Your task to perform on an android device: When is my next meeting? Image 0: 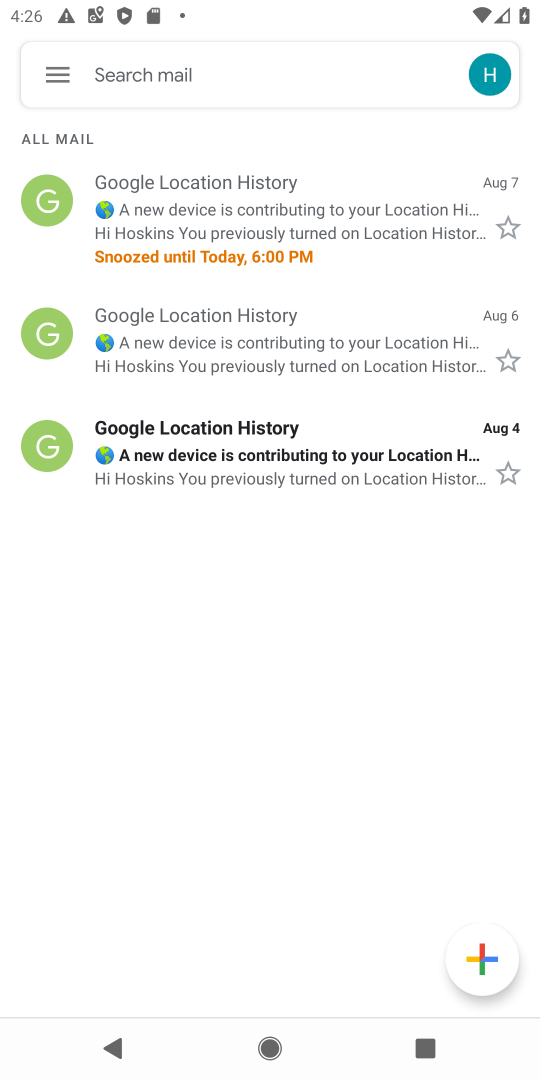
Step 0: press home button
Your task to perform on an android device: When is my next meeting? Image 1: 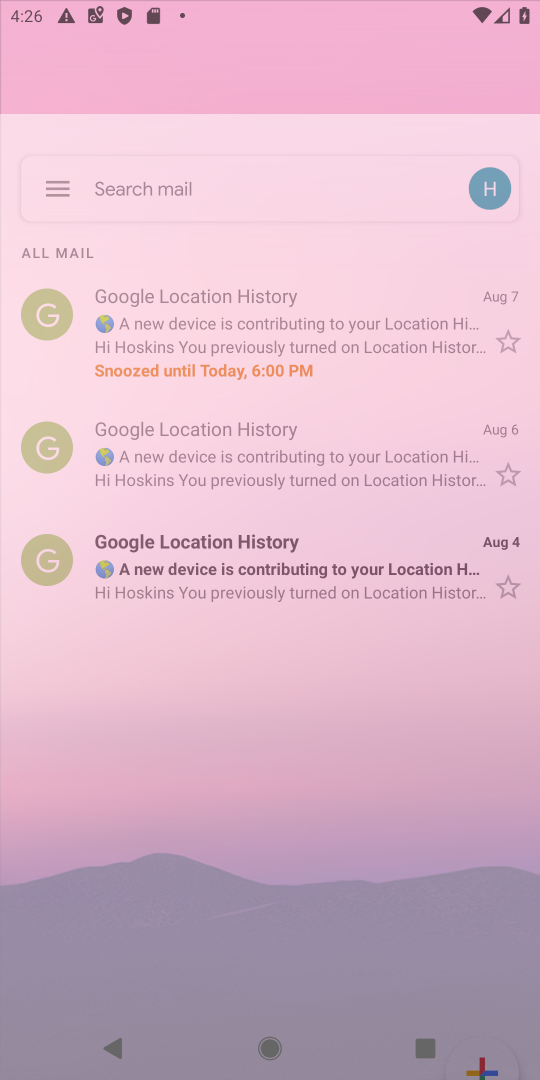
Step 1: press home button
Your task to perform on an android device: When is my next meeting? Image 2: 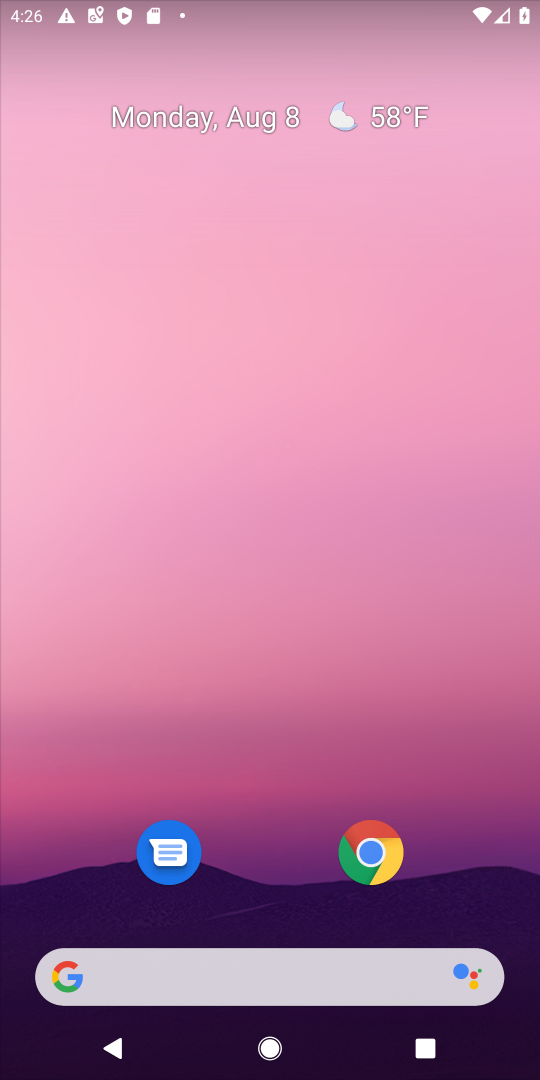
Step 2: drag from (310, 736) to (356, 16)
Your task to perform on an android device: When is my next meeting? Image 3: 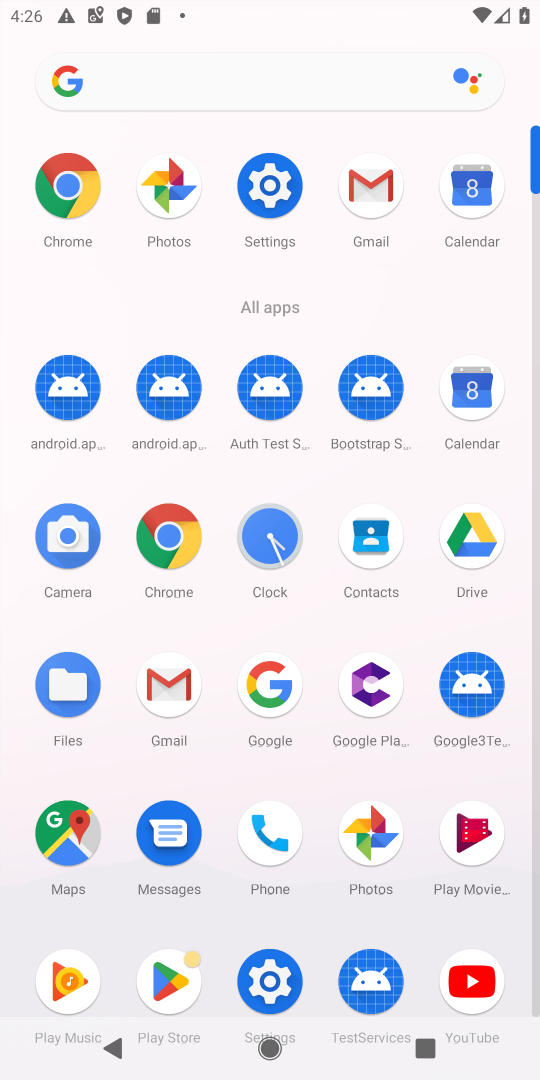
Step 3: click (467, 390)
Your task to perform on an android device: When is my next meeting? Image 4: 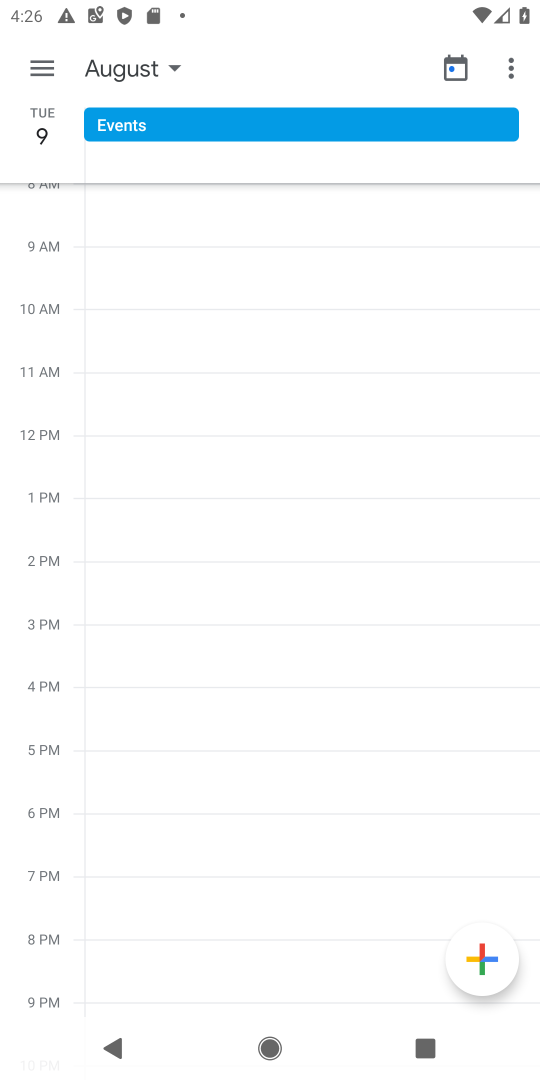
Step 4: click (47, 62)
Your task to perform on an android device: When is my next meeting? Image 5: 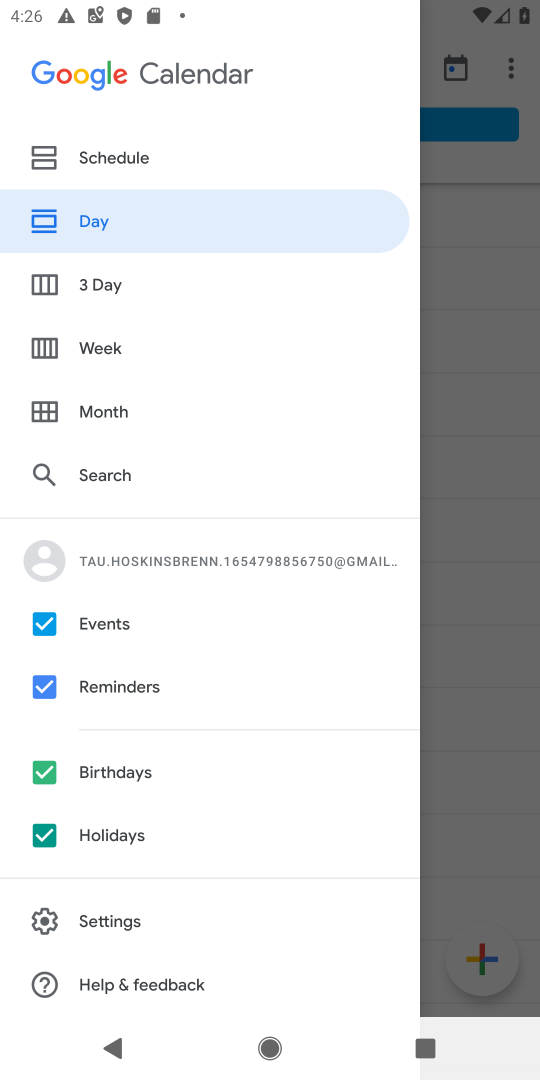
Step 5: click (103, 289)
Your task to perform on an android device: When is my next meeting? Image 6: 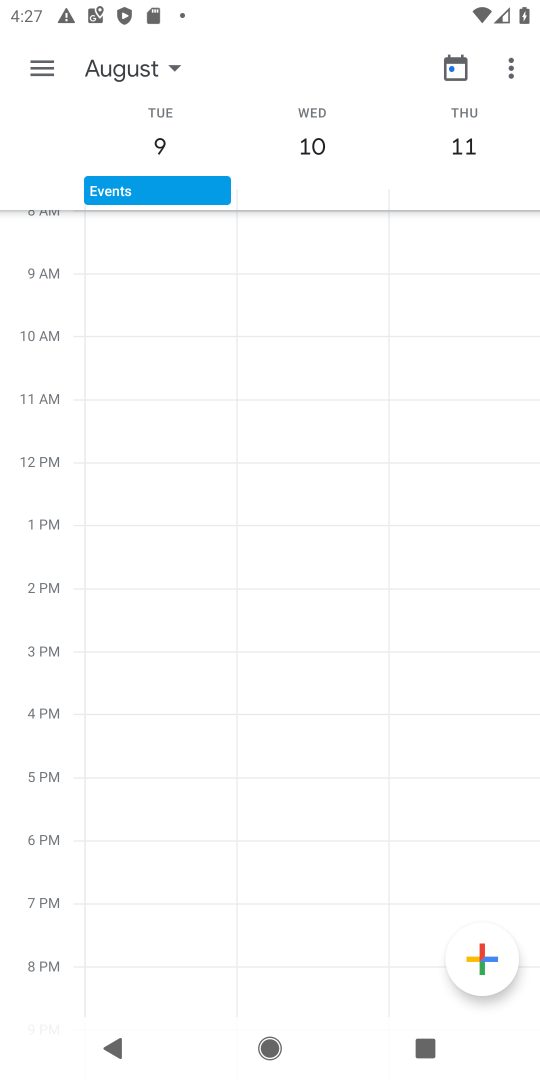
Step 6: task complete